Your task to perform on an android device: Go to Yahoo.com Image 0: 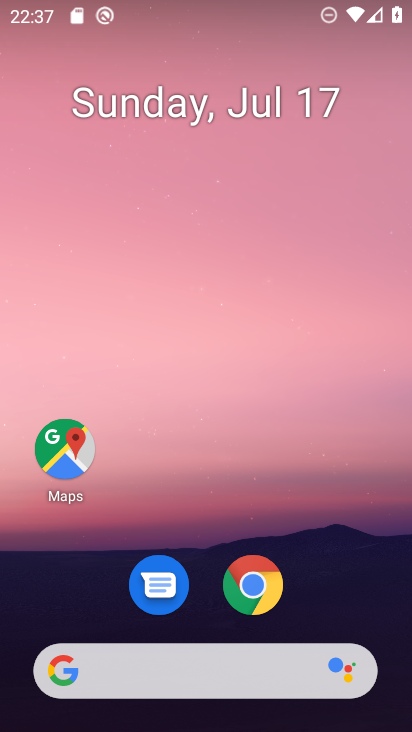
Step 0: press home button
Your task to perform on an android device: Go to Yahoo.com Image 1: 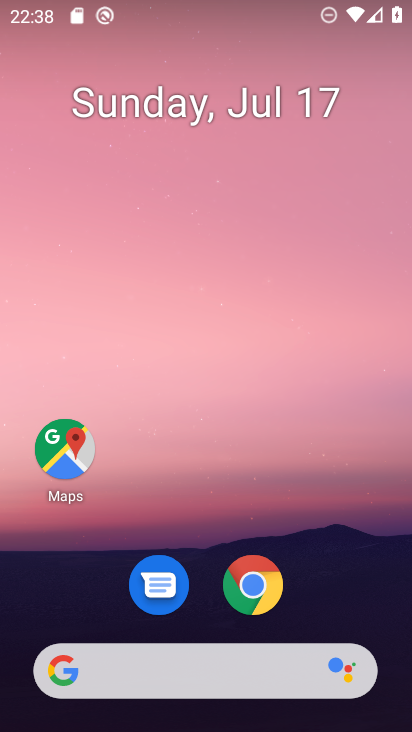
Step 1: click (255, 600)
Your task to perform on an android device: Go to Yahoo.com Image 2: 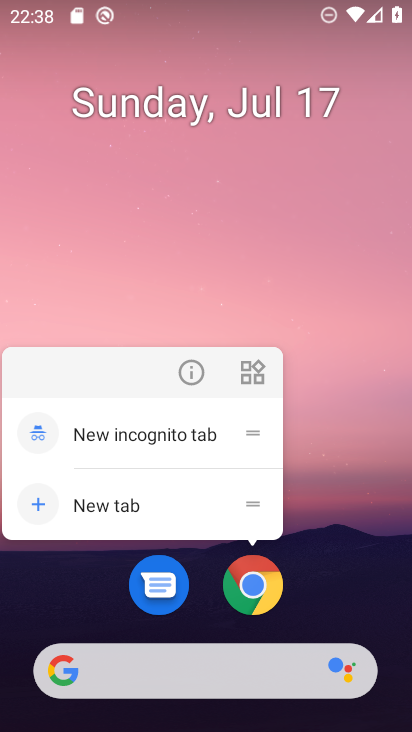
Step 2: click (259, 581)
Your task to perform on an android device: Go to Yahoo.com Image 3: 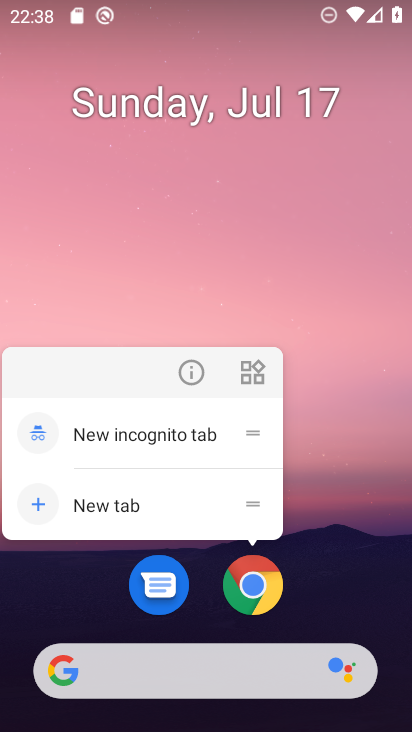
Step 3: click (254, 586)
Your task to perform on an android device: Go to Yahoo.com Image 4: 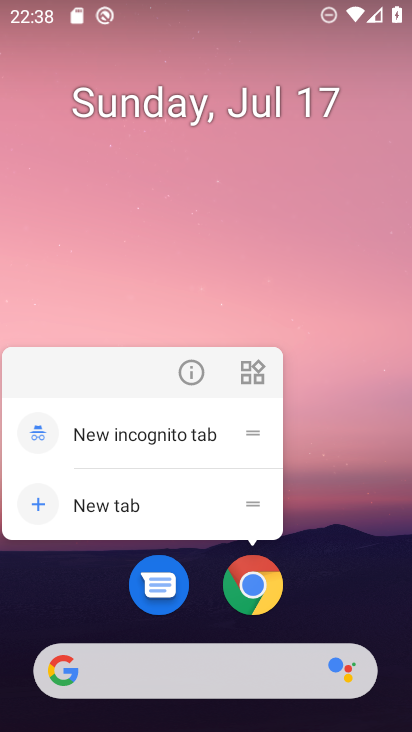
Step 4: click (254, 587)
Your task to perform on an android device: Go to Yahoo.com Image 5: 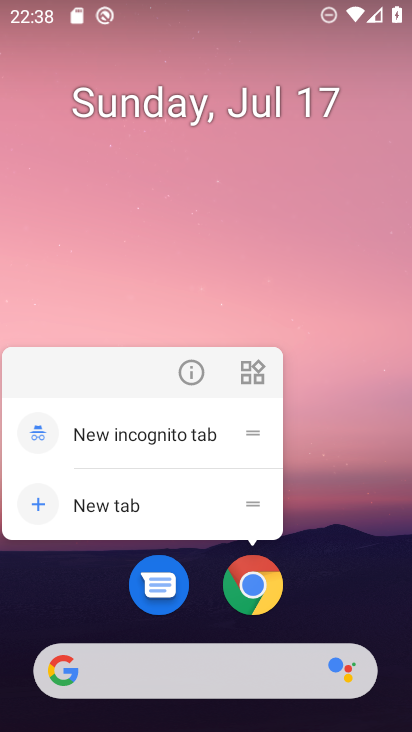
Step 5: click (253, 585)
Your task to perform on an android device: Go to Yahoo.com Image 6: 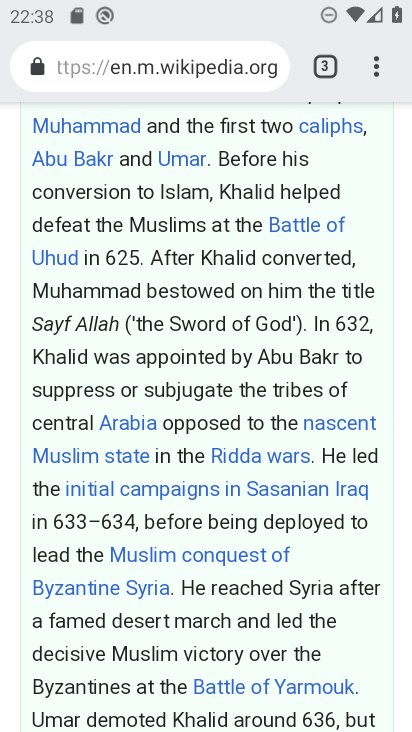
Step 6: drag from (377, 65) to (179, 132)
Your task to perform on an android device: Go to Yahoo.com Image 7: 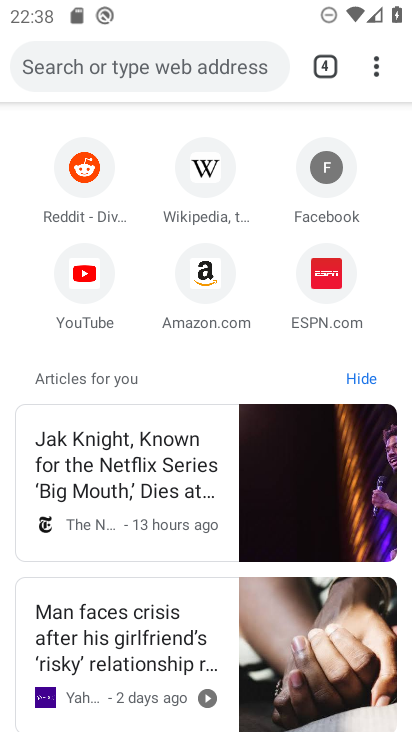
Step 7: click (168, 65)
Your task to perform on an android device: Go to Yahoo.com Image 8: 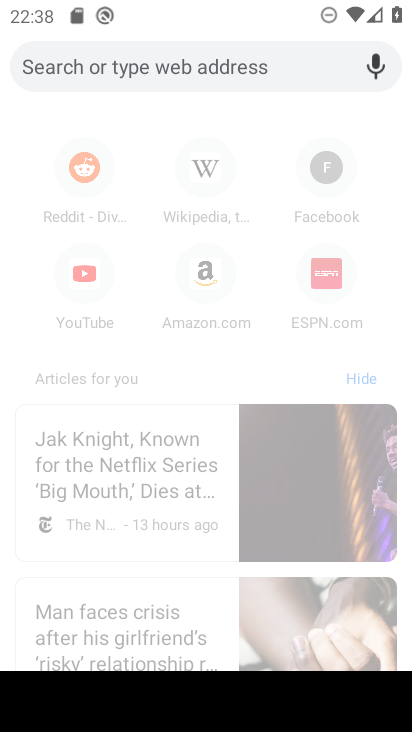
Step 8: type "yahoo.com"
Your task to perform on an android device: Go to Yahoo.com Image 9: 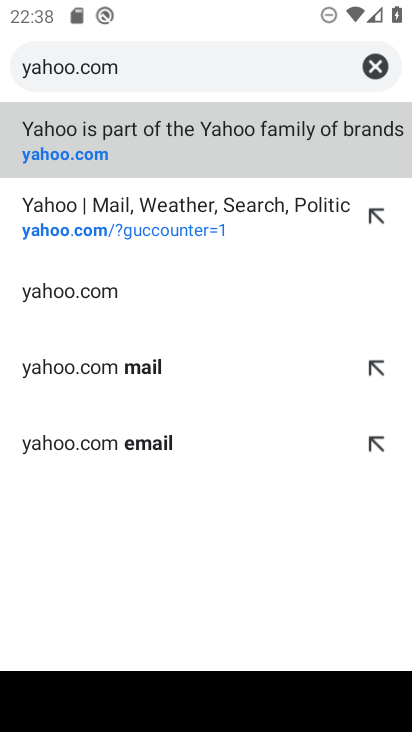
Step 9: click (231, 140)
Your task to perform on an android device: Go to Yahoo.com Image 10: 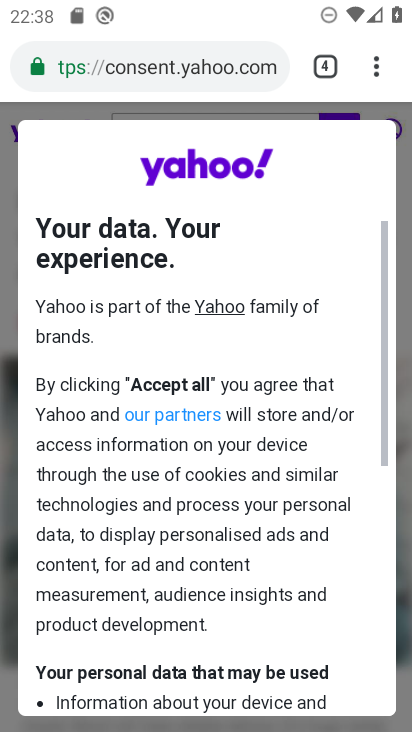
Step 10: drag from (194, 608) to (409, 128)
Your task to perform on an android device: Go to Yahoo.com Image 11: 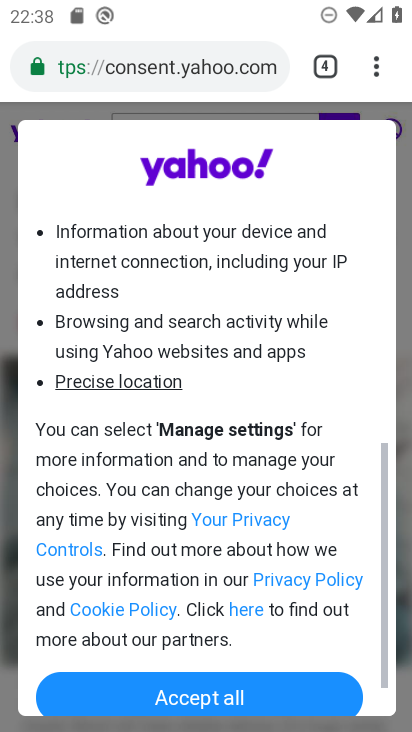
Step 11: click (212, 699)
Your task to perform on an android device: Go to Yahoo.com Image 12: 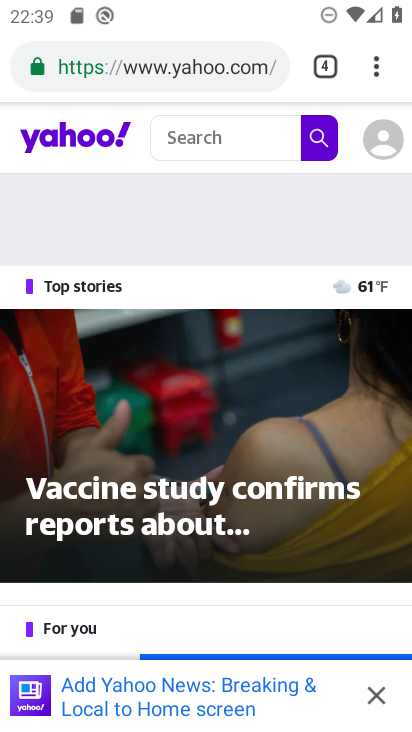
Step 12: task complete